Your task to perform on an android device: Search for "dell xps" on amazon, select the first entry, and add it to the cart. Image 0: 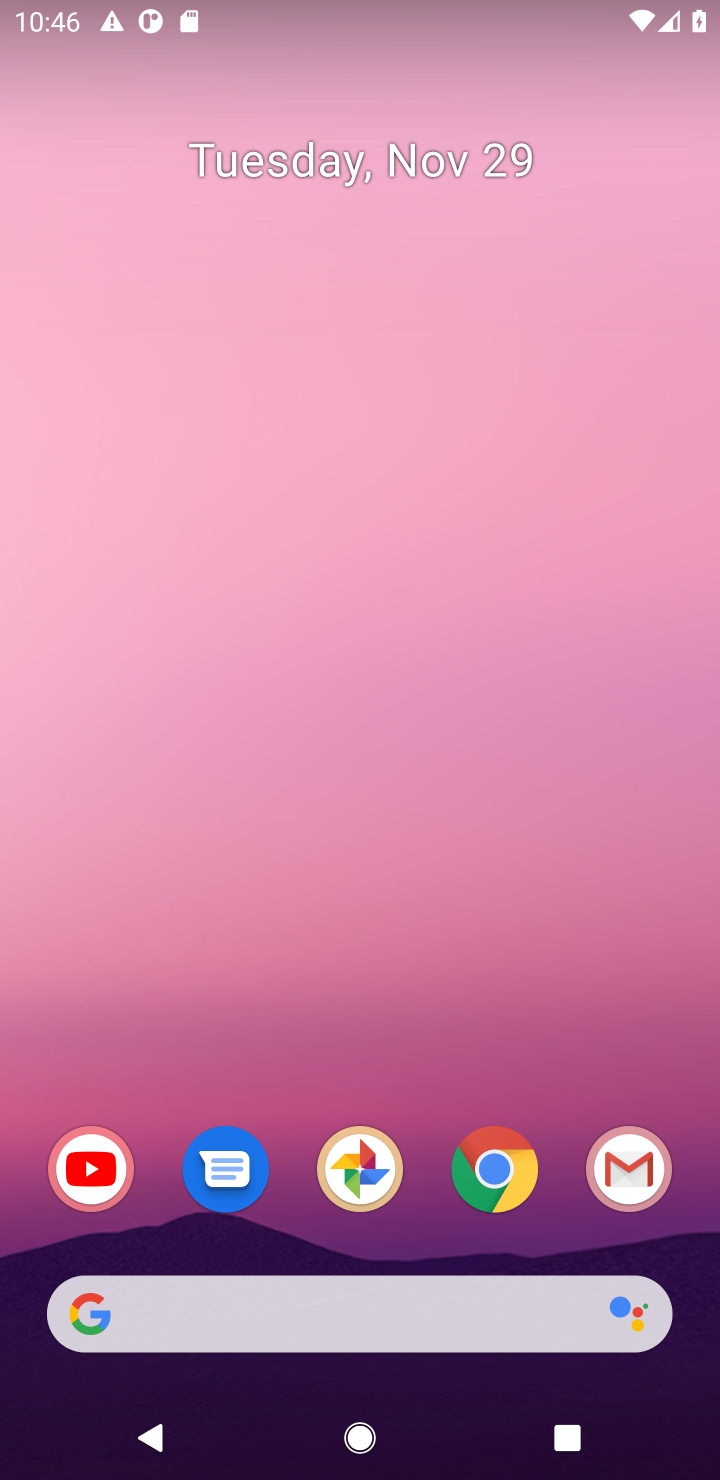
Step 0: click (282, 1311)
Your task to perform on an android device: Search for "dell xps" on amazon, select the first entry, and add it to the cart. Image 1: 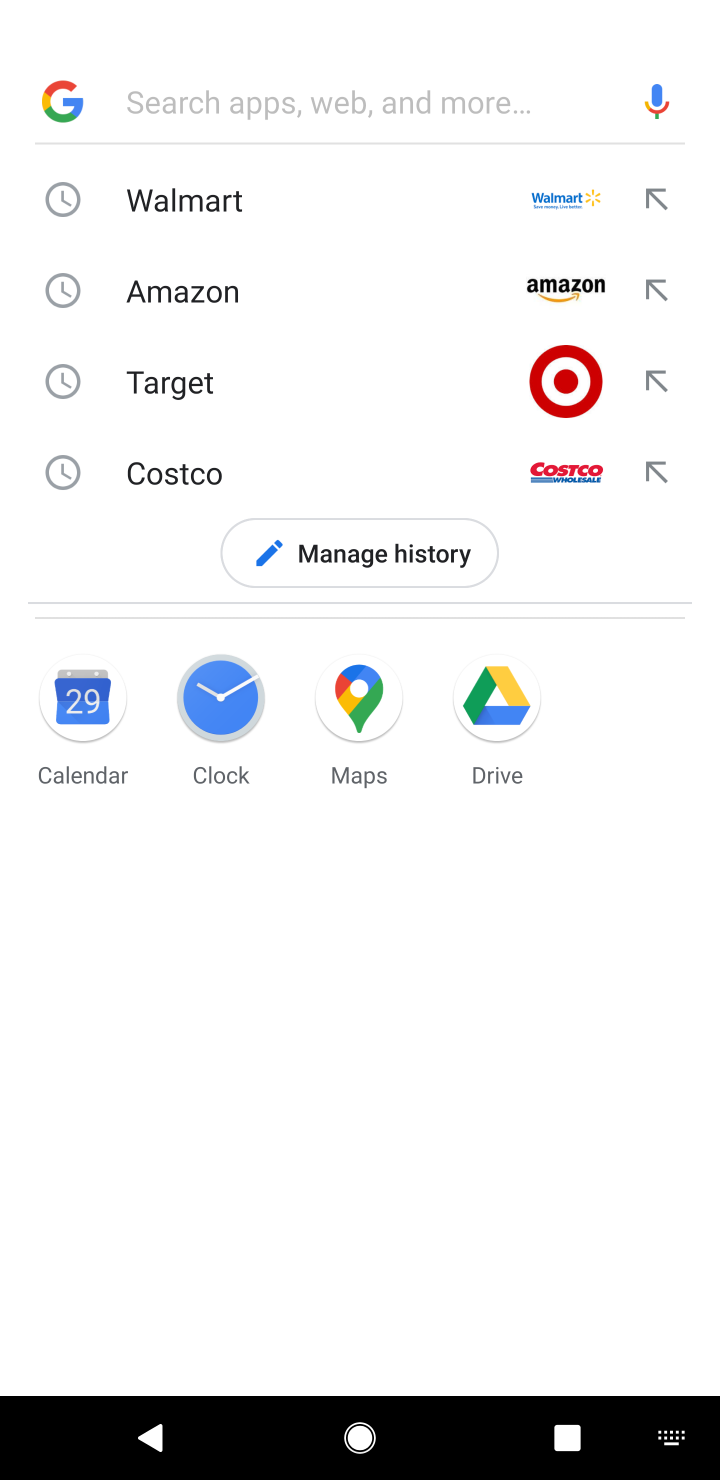
Step 1: type "amazon "
Your task to perform on an android device: Search for "dell xps" on amazon, select the first entry, and add it to the cart. Image 2: 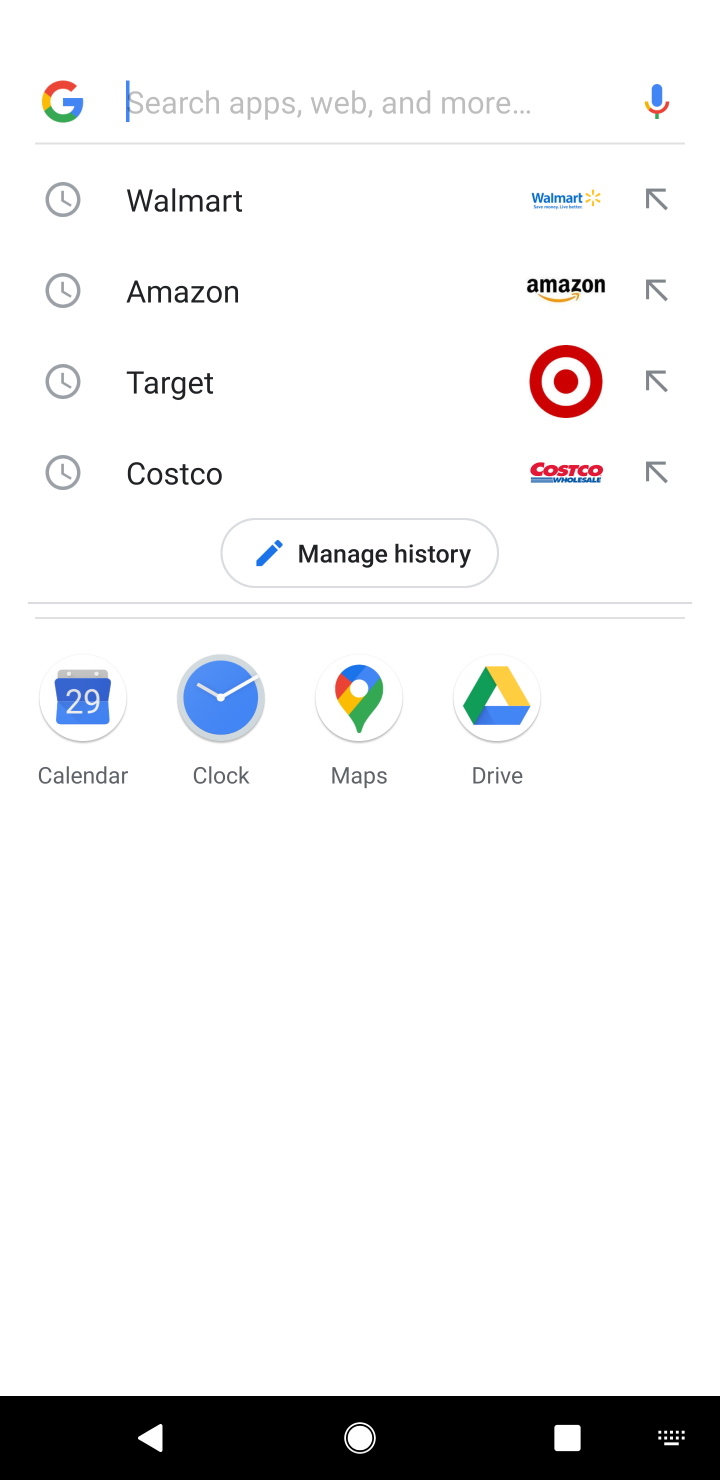
Step 2: click (244, 307)
Your task to perform on an android device: Search for "dell xps" on amazon, select the first entry, and add it to the cart. Image 3: 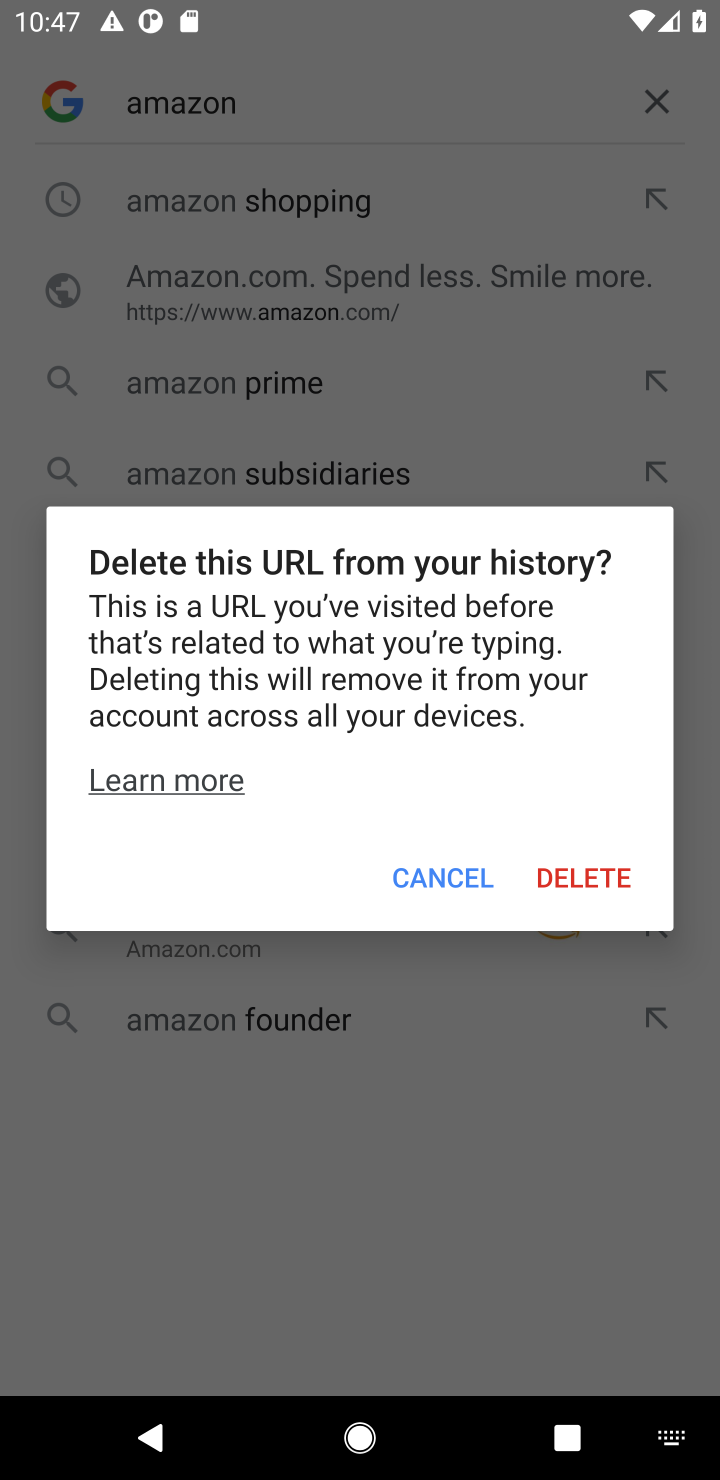
Step 3: click (430, 866)
Your task to perform on an android device: Search for "dell xps" on amazon, select the first entry, and add it to the cart. Image 4: 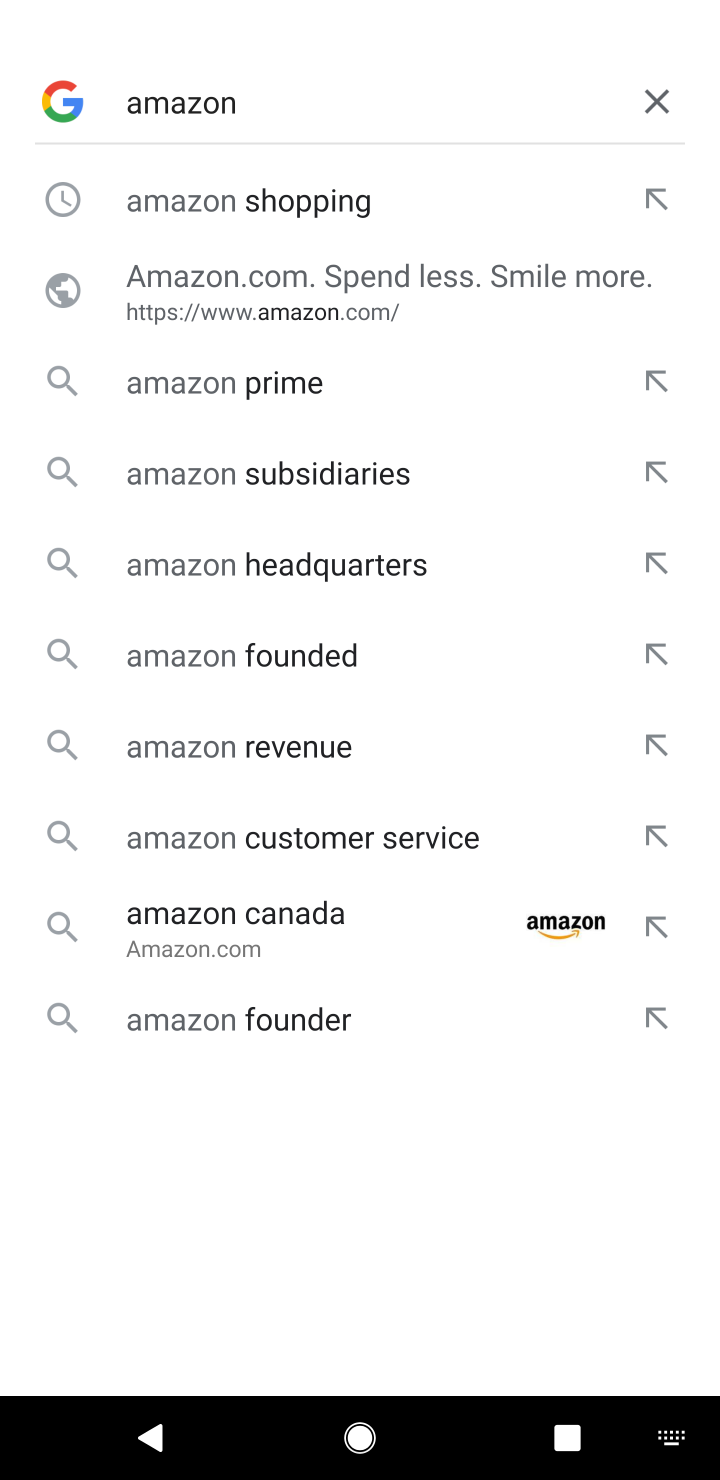
Step 4: click (226, 284)
Your task to perform on an android device: Search for "dell xps" on amazon, select the first entry, and add it to the cart. Image 5: 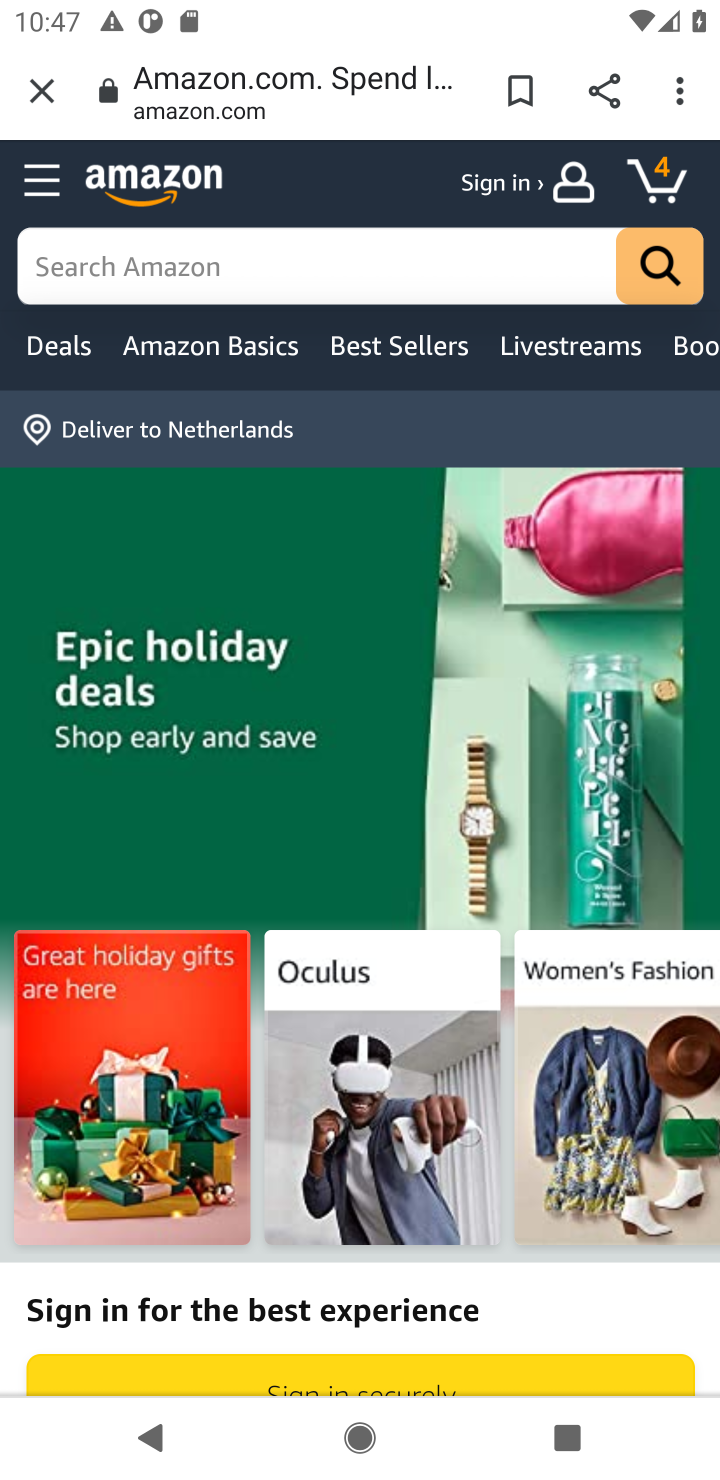
Step 5: click (226, 284)
Your task to perform on an android device: Search for "dell xps" on amazon, select the first entry, and add it to the cart. Image 6: 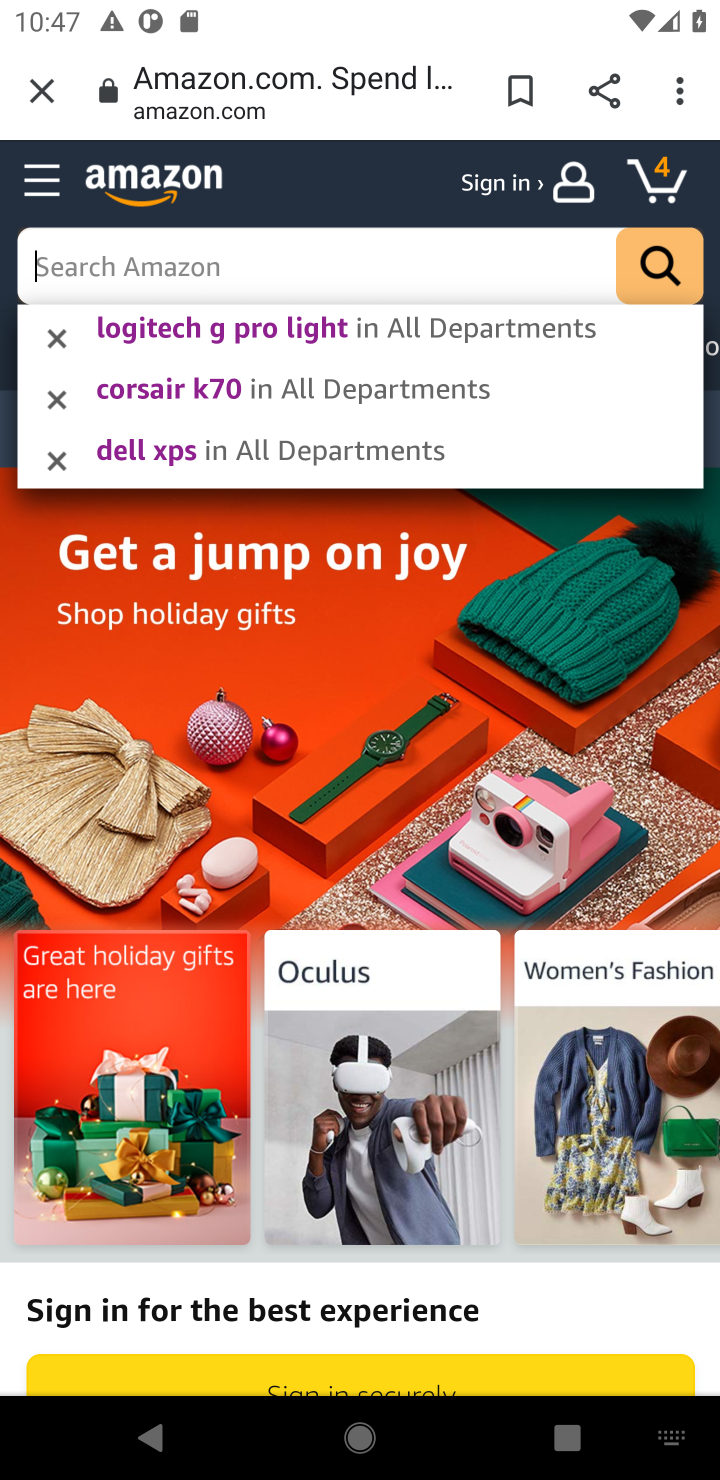
Step 6: type "dell xps"
Your task to perform on an android device: Search for "dell xps" on amazon, select the first entry, and add it to the cart. Image 7: 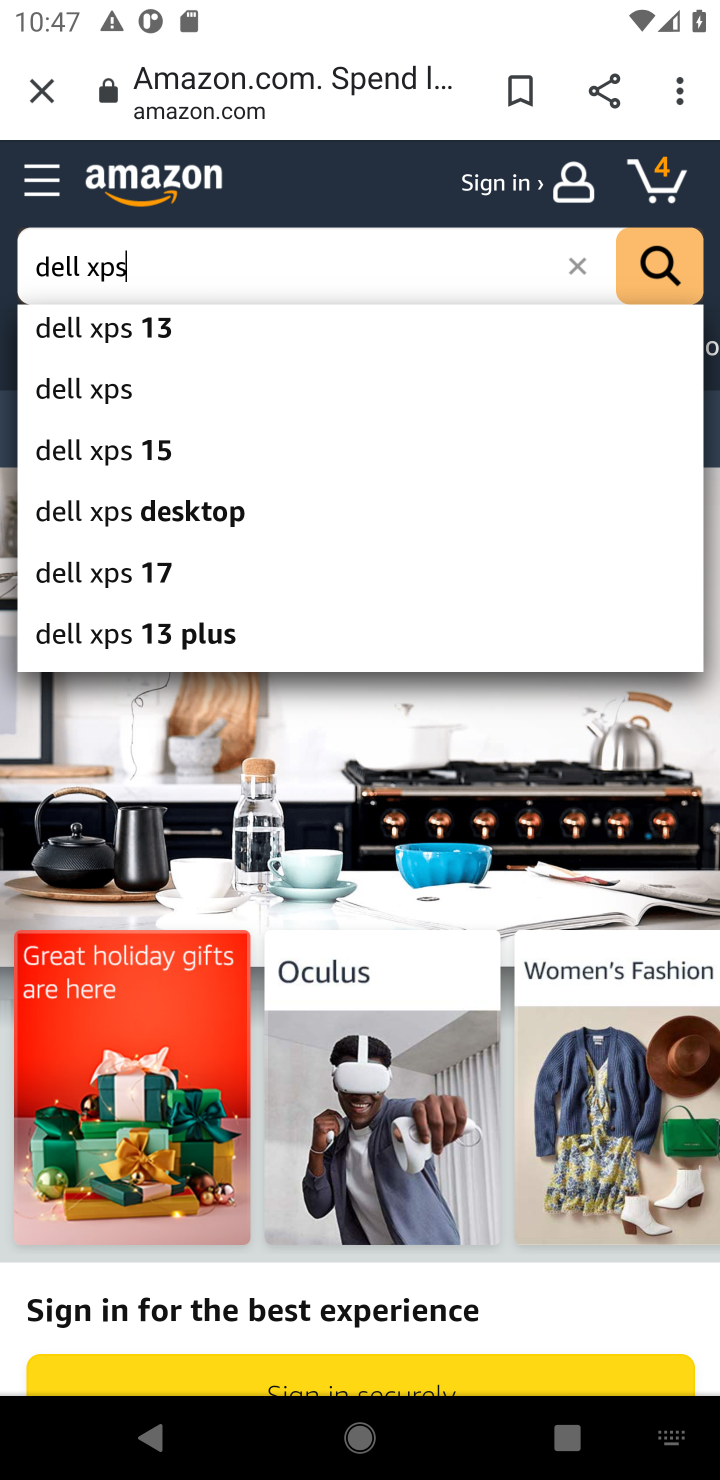
Step 7: click (115, 394)
Your task to perform on an android device: Search for "dell xps" on amazon, select the first entry, and add it to the cart. Image 8: 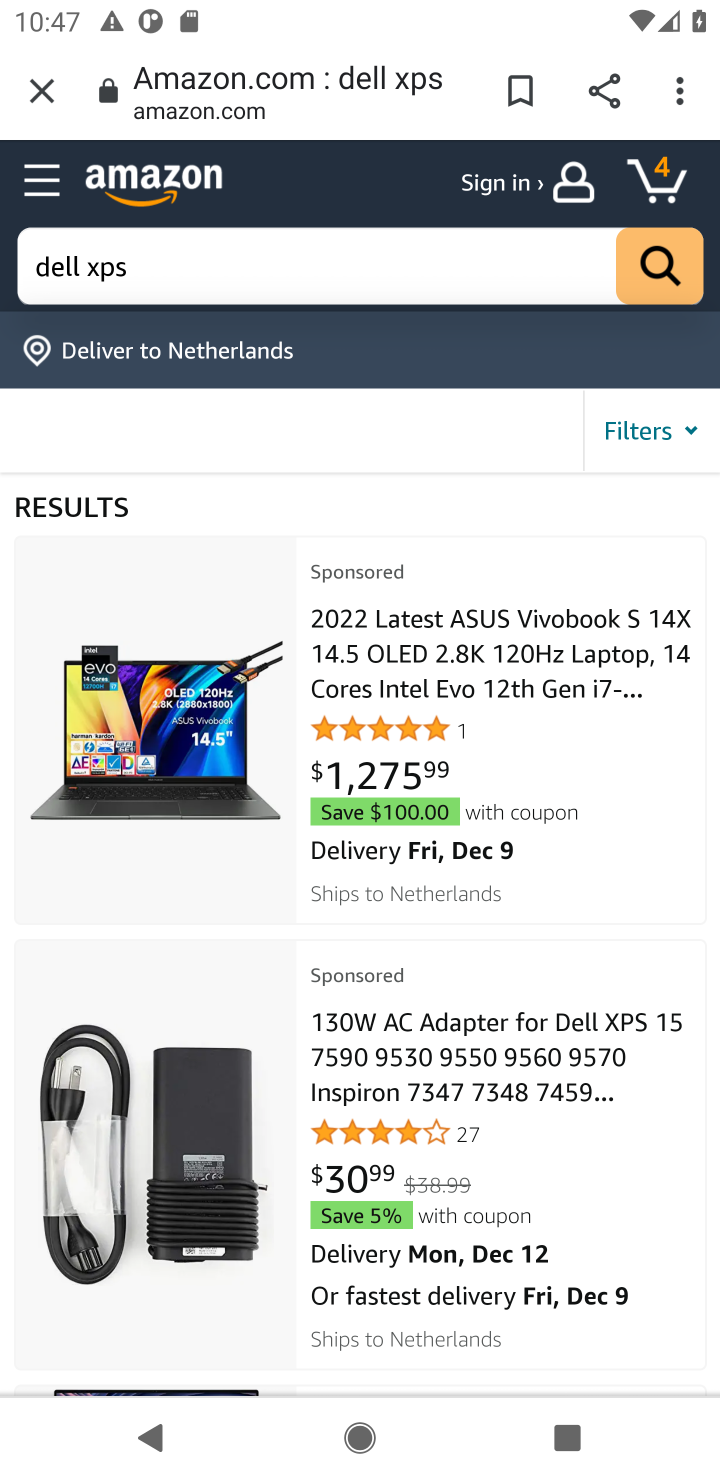
Step 8: click (421, 655)
Your task to perform on an android device: Search for "dell xps" on amazon, select the first entry, and add it to the cart. Image 9: 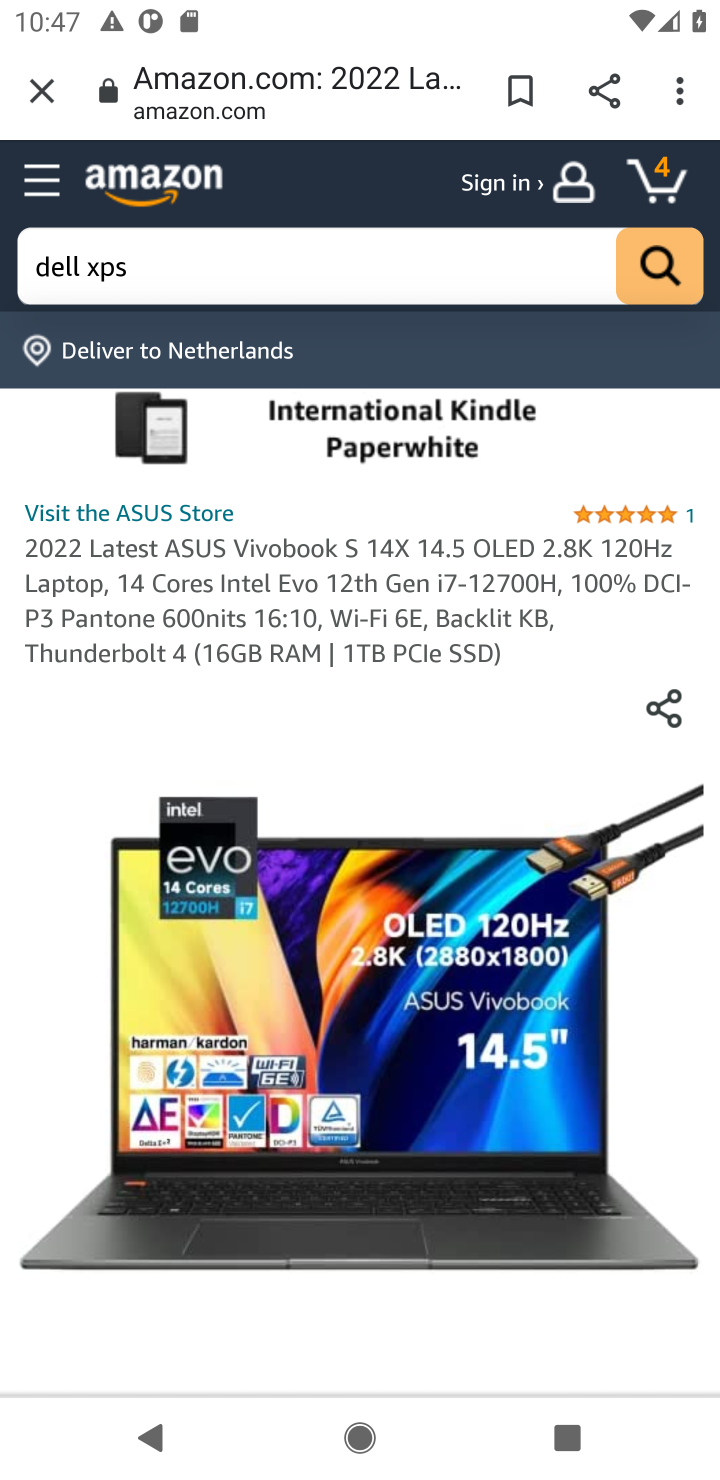
Step 9: drag from (151, 1319) to (159, 1061)
Your task to perform on an android device: Search for "dell xps" on amazon, select the first entry, and add it to the cart. Image 10: 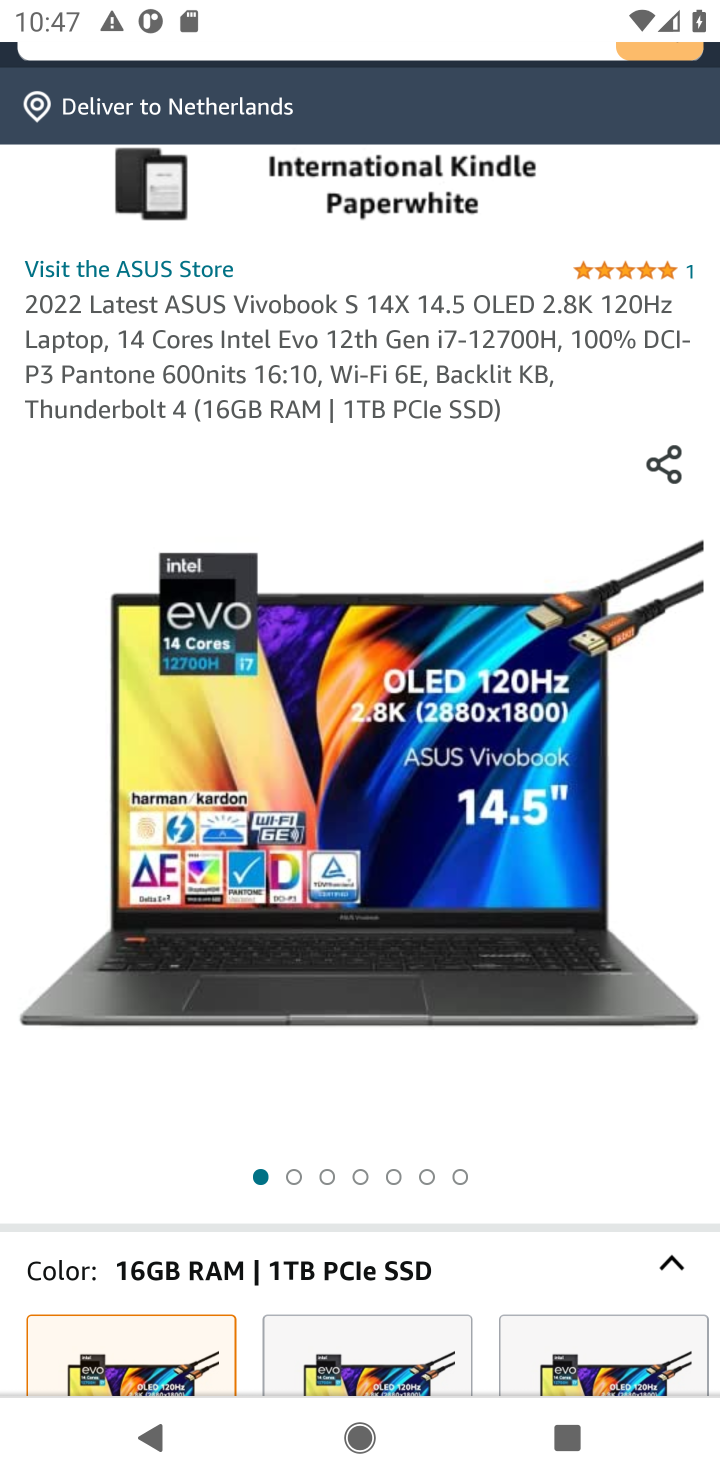
Step 10: drag from (113, 1124) to (215, 169)
Your task to perform on an android device: Search for "dell xps" on amazon, select the first entry, and add it to the cart. Image 11: 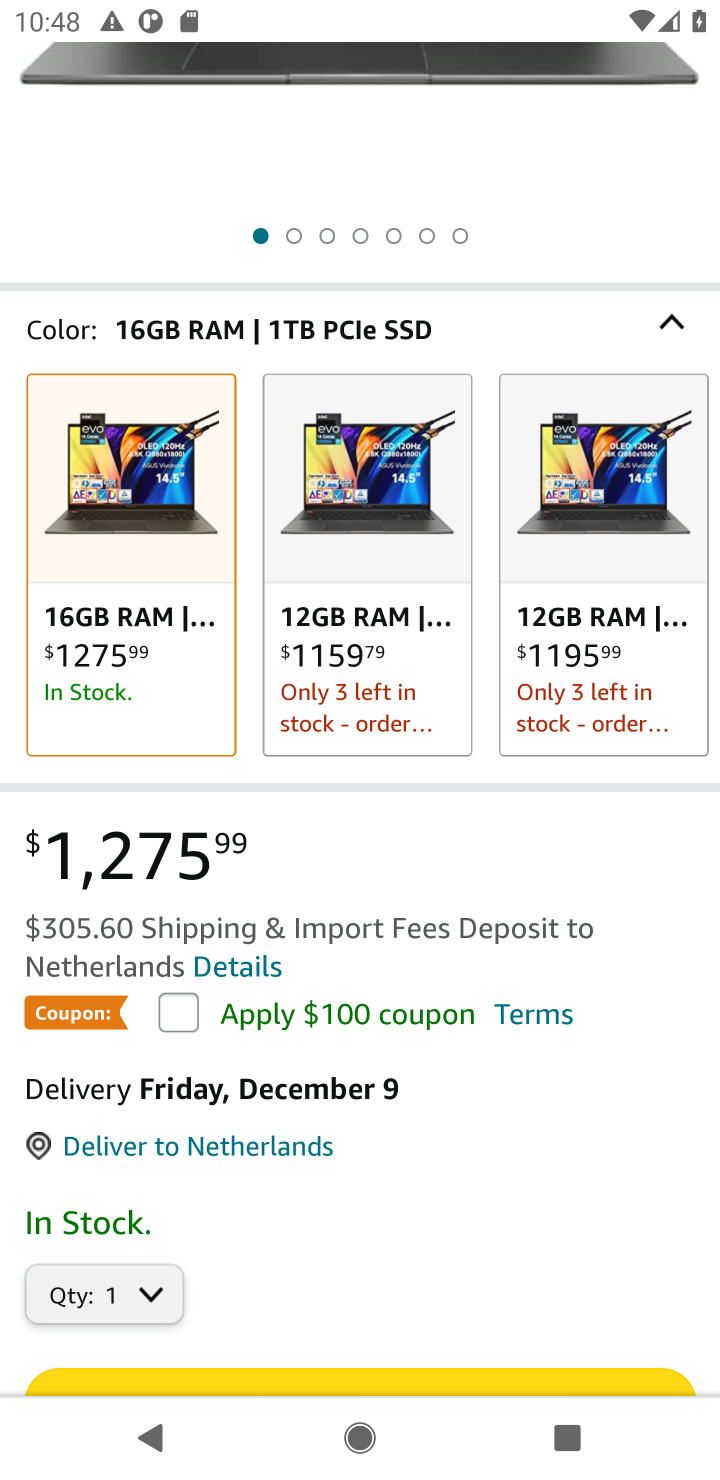
Step 11: drag from (503, 1329) to (541, 595)
Your task to perform on an android device: Search for "dell xps" on amazon, select the first entry, and add it to the cart. Image 12: 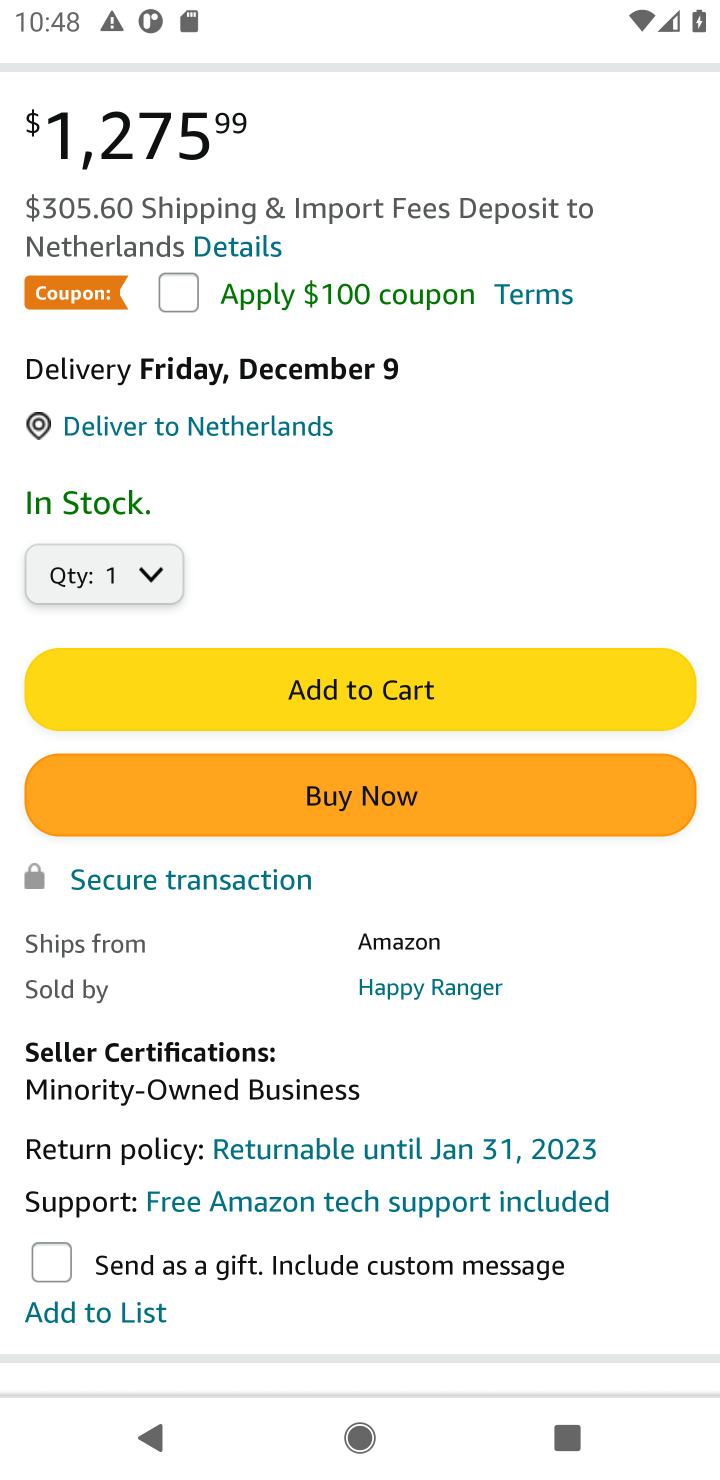
Step 12: click (337, 1289)
Your task to perform on an android device: Search for "dell xps" on amazon, select the first entry, and add it to the cart. Image 13: 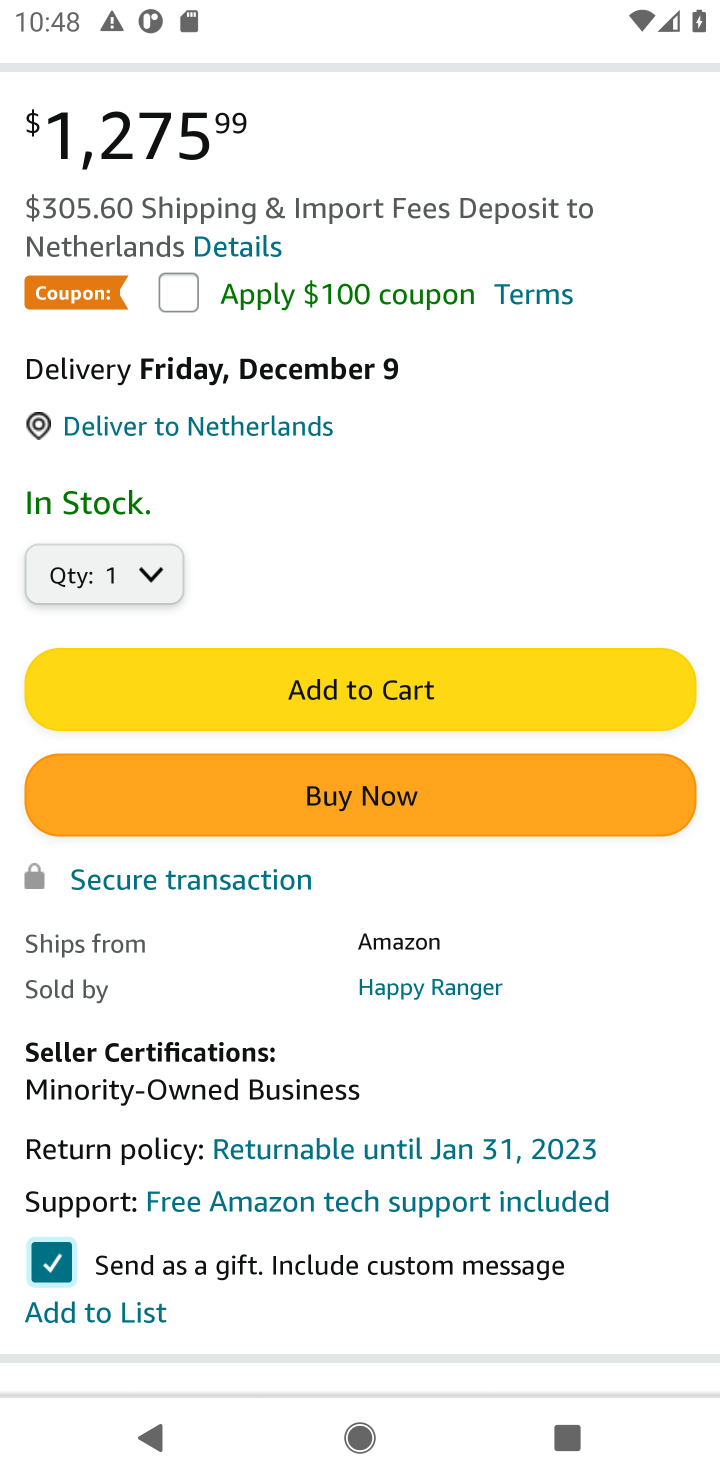
Step 13: click (383, 683)
Your task to perform on an android device: Search for "dell xps" on amazon, select the first entry, and add it to the cart. Image 14: 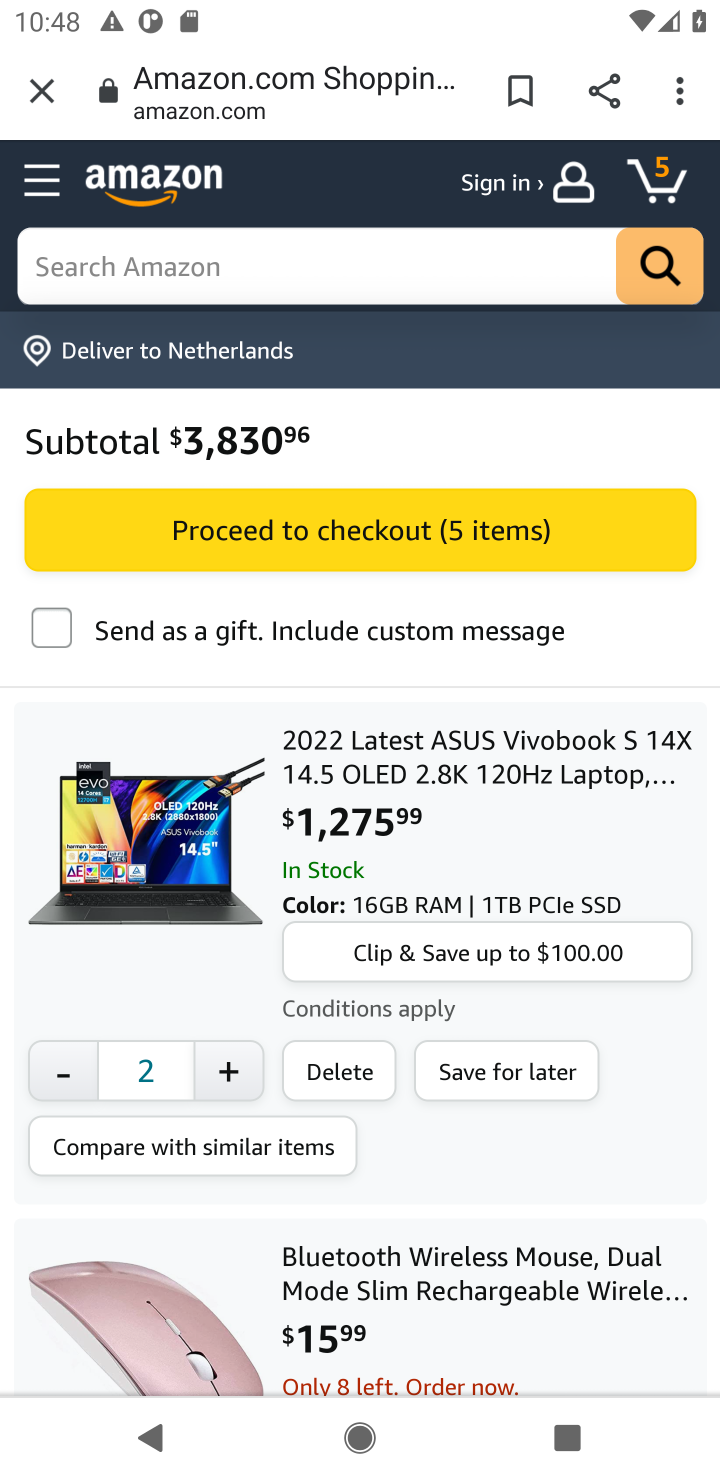
Step 14: task complete